Your task to perform on an android device: empty trash in the gmail app Image 0: 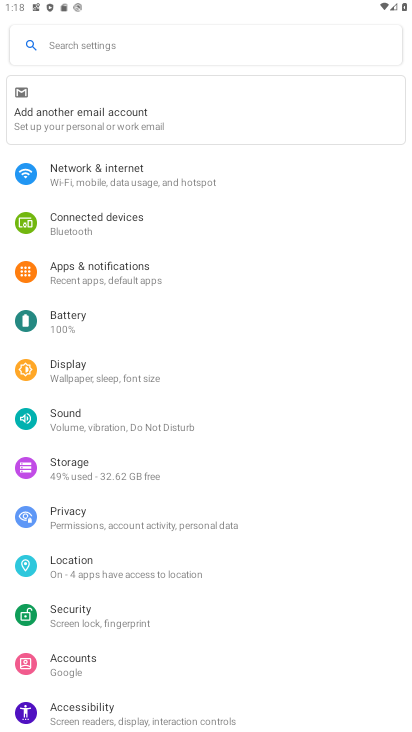
Step 0: press home button
Your task to perform on an android device: empty trash in the gmail app Image 1: 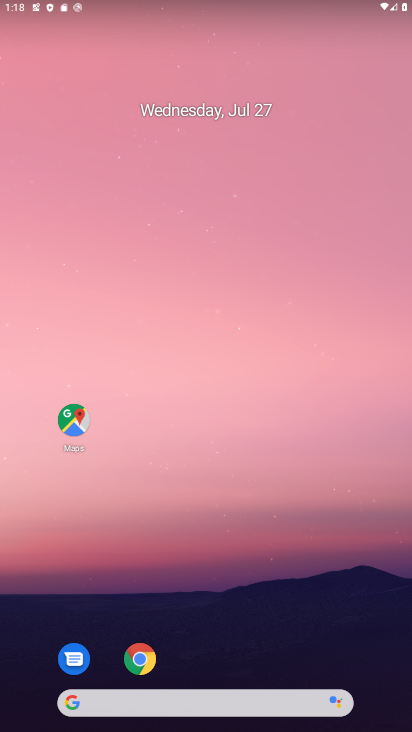
Step 1: drag from (263, 652) to (249, 102)
Your task to perform on an android device: empty trash in the gmail app Image 2: 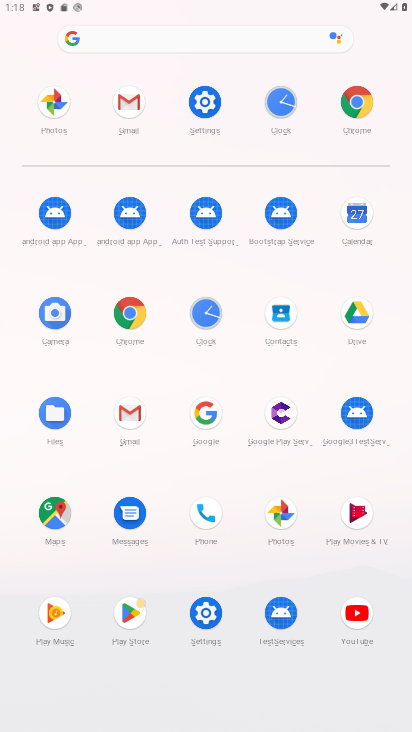
Step 2: click (130, 90)
Your task to perform on an android device: empty trash in the gmail app Image 3: 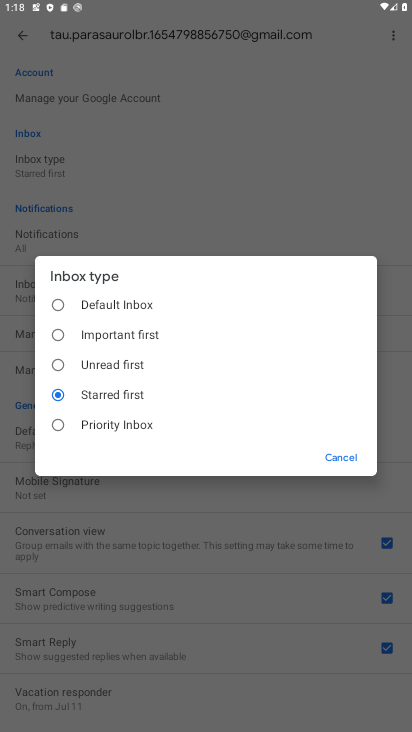
Step 3: click (340, 452)
Your task to perform on an android device: empty trash in the gmail app Image 4: 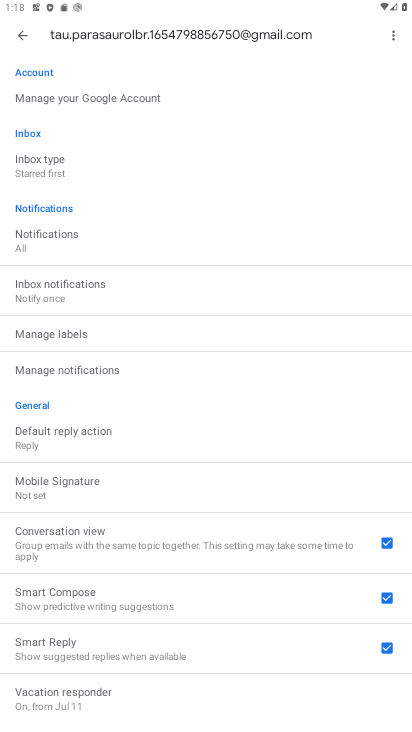
Step 4: click (22, 32)
Your task to perform on an android device: empty trash in the gmail app Image 5: 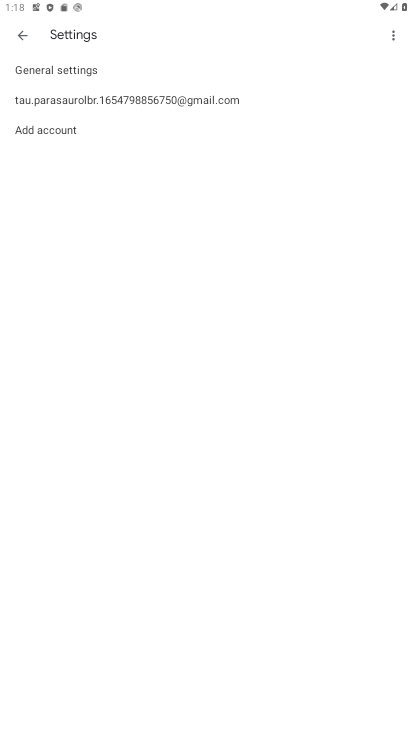
Step 5: click (22, 32)
Your task to perform on an android device: empty trash in the gmail app Image 6: 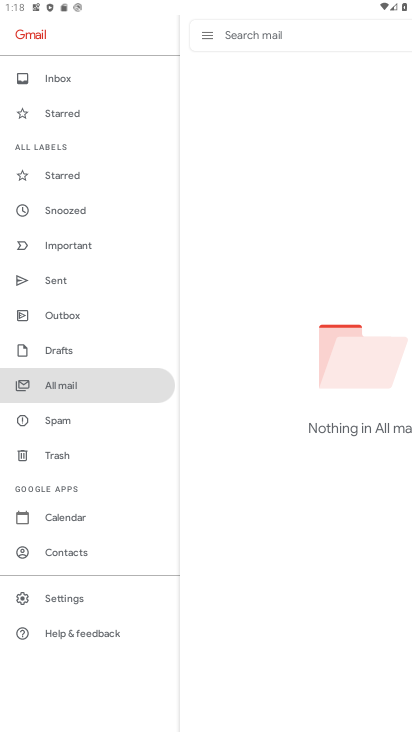
Step 6: click (74, 457)
Your task to perform on an android device: empty trash in the gmail app Image 7: 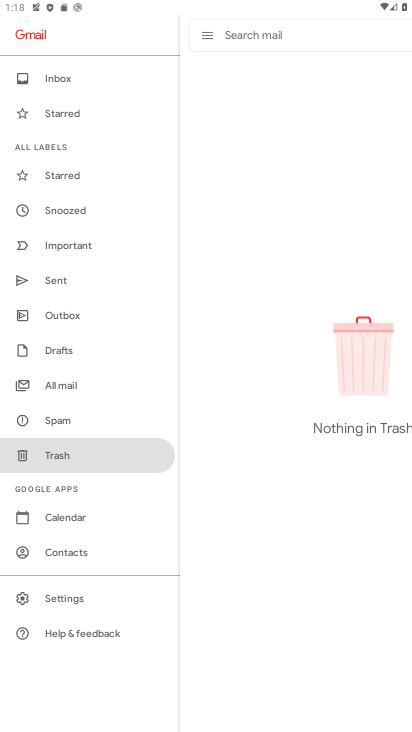
Step 7: task complete